Your task to perform on an android device: change timer sound Image 0: 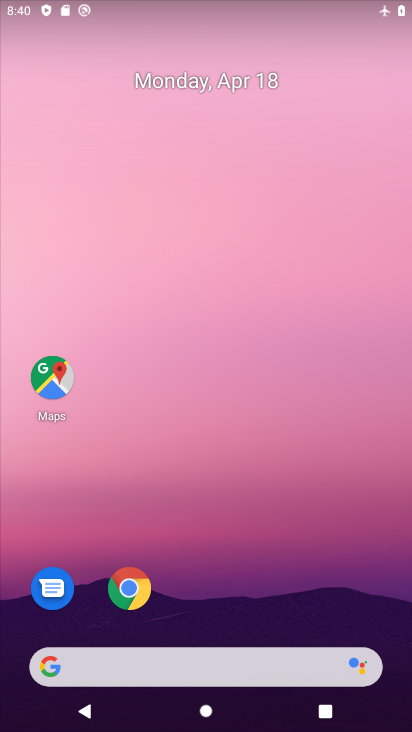
Step 0: drag from (263, 604) to (315, 180)
Your task to perform on an android device: change timer sound Image 1: 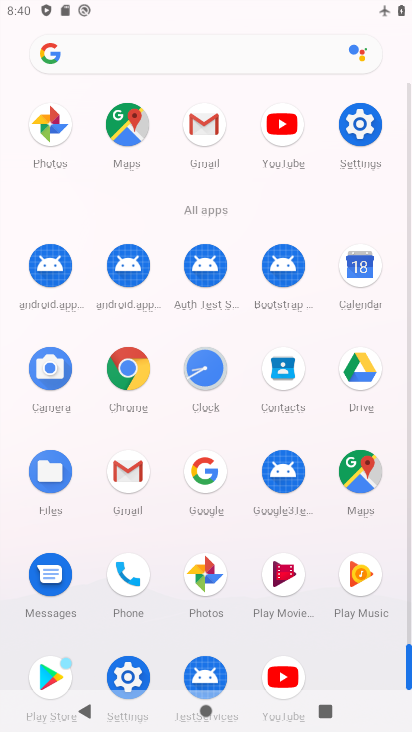
Step 1: click (210, 363)
Your task to perform on an android device: change timer sound Image 2: 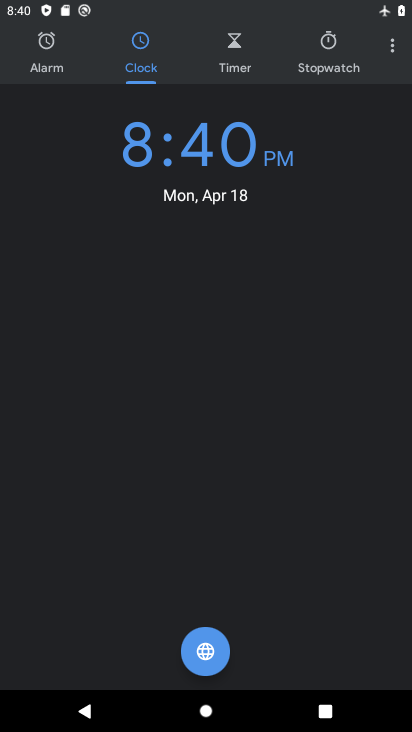
Step 2: click (386, 41)
Your task to perform on an android device: change timer sound Image 3: 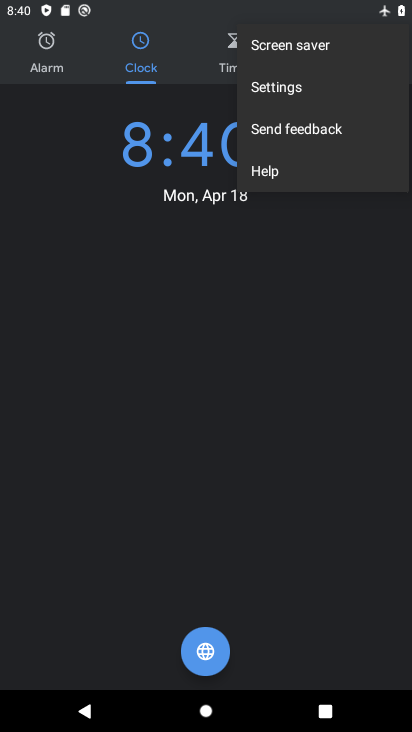
Step 3: click (293, 245)
Your task to perform on an android device: change timer sound Image 4: 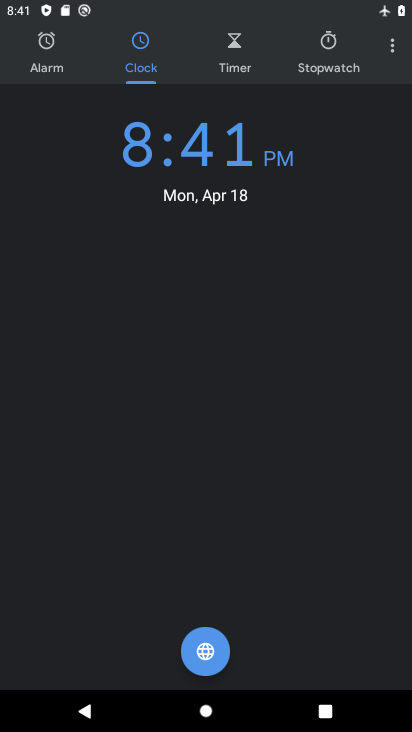
Step 4: click (389, 33)
Your task to perform on an android device: change timer sound Image 5: 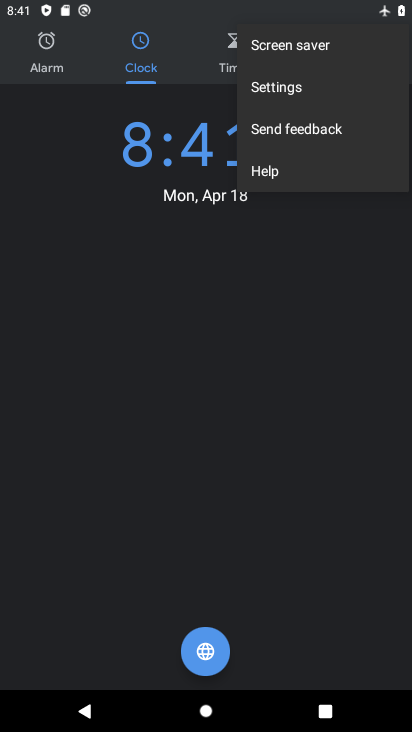
Step 5: click (292, 83)
Your task to perform on an android device: change timer sound Image 6: 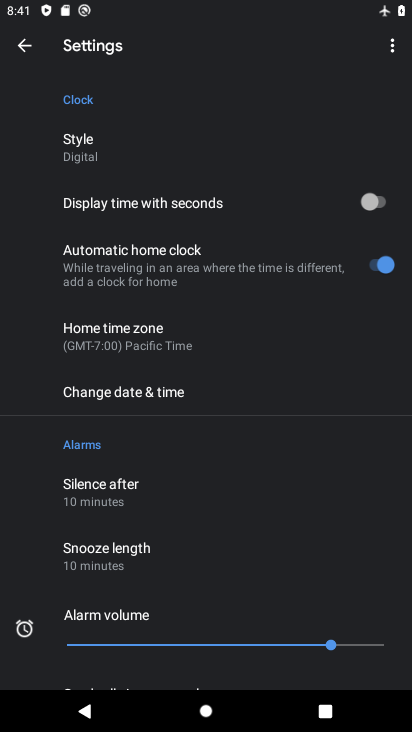
Step 6: drag from (214, 541) to (246, 89)
Your task to perform on an android device: change timer sound Image 7: 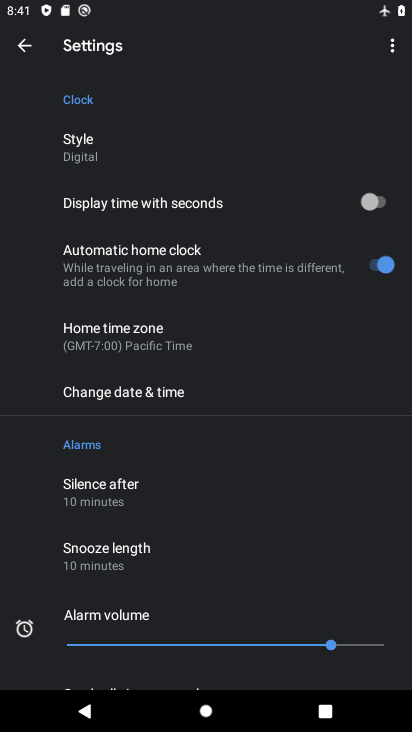
Step 7: drag from (213, 577) to (219, 114)
Your task to perform on an android device: change timer sound Image 8: 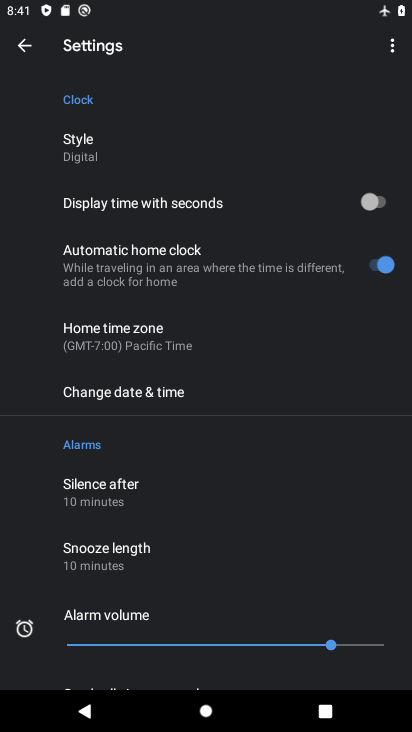
Step 8: drag from (245, 453) to (259, 105)
Your task to perform on an android device: change timer sound Image 9: 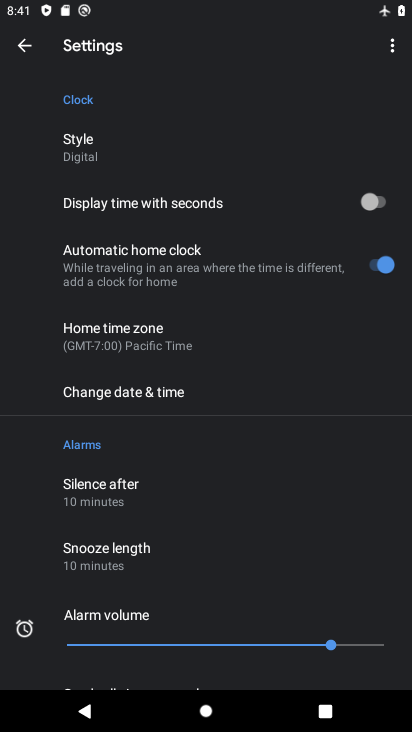
Step 9: drag from (245, 508) to (270, 136)
Your task to perform on an android device: change timer sound Image 10: 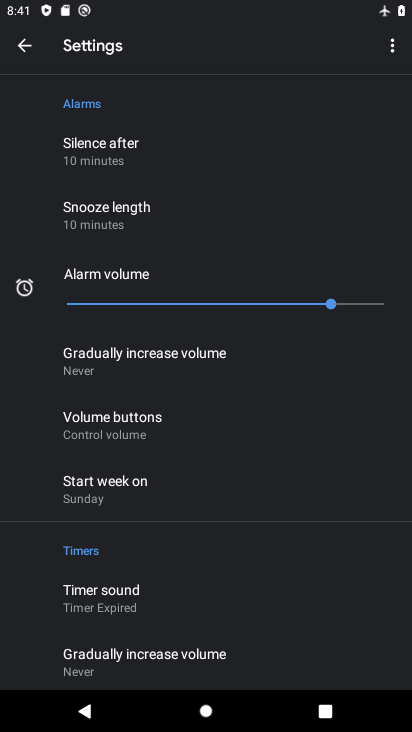
Step 10: click (145, 615)
Your task to perform on an android device: change timer sound Image 11: 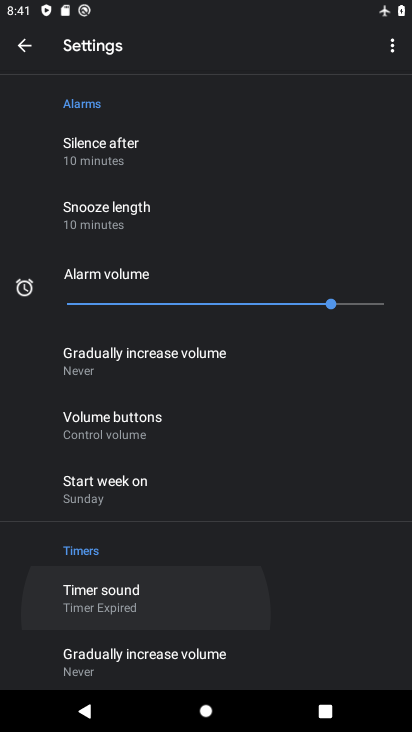
Step 11: click (141, 603)
Your task to perform on an android device: change timer sound Image 12: 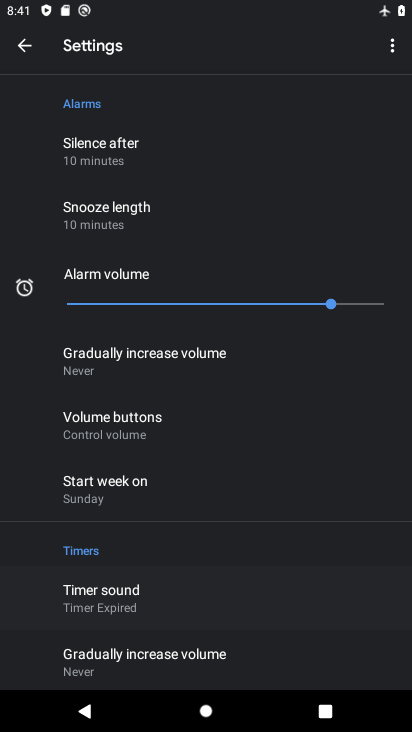
Step 12: click (141, 603)
Your task to perform on an android device: change timer sound Image 13: 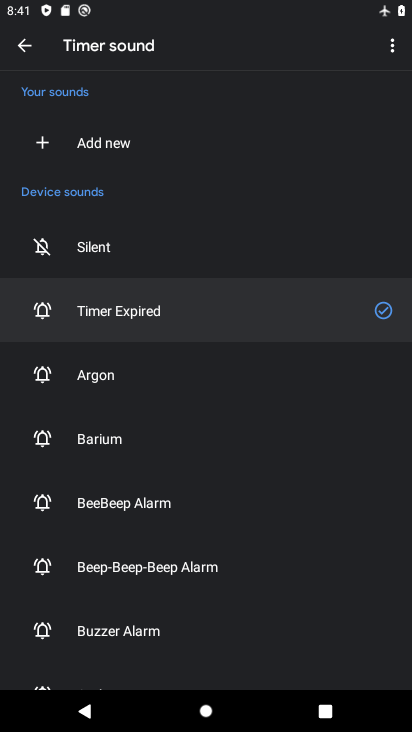
Step 13: click (121, 504)
Your task to perform on an android device: change timer sound Image 14: 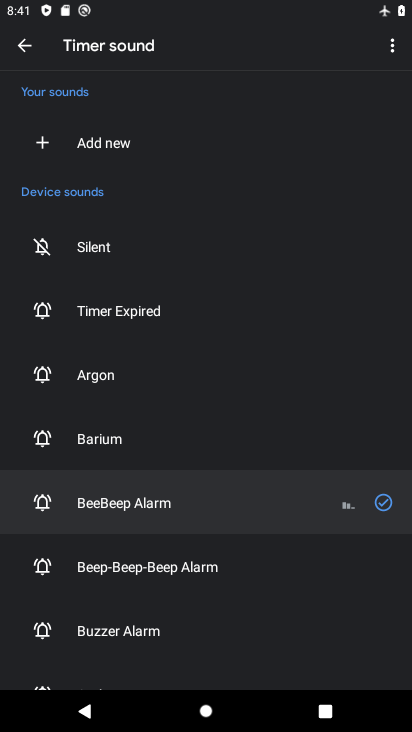
Step 14: task complete